Your task to perform on an android device: visit the assistant section in the google photos Image 0: 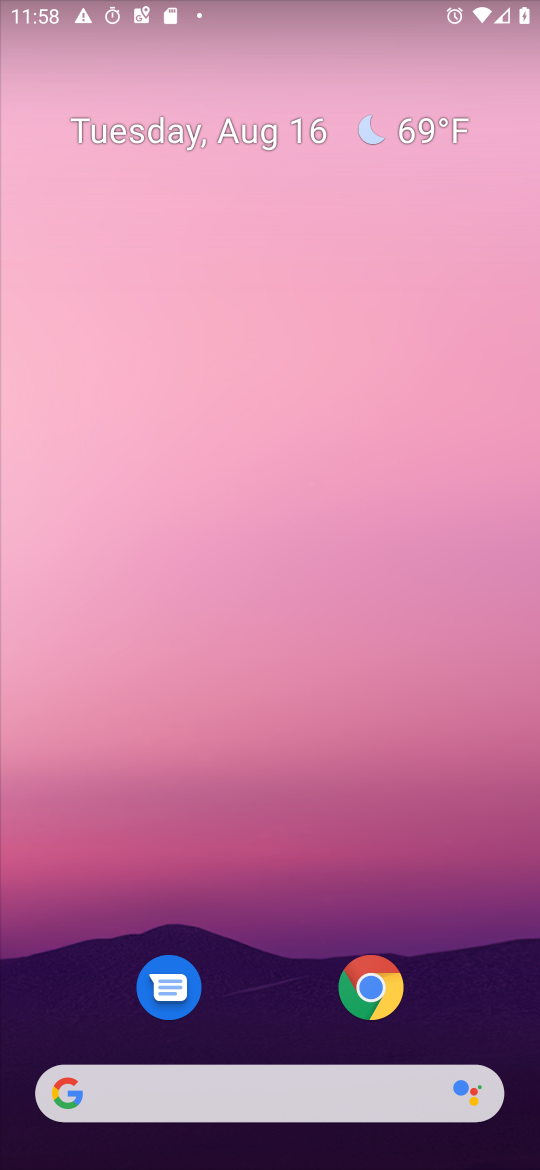
Step 0: drag from (13, 1111) to (371, 264)
Your task to perform on an android device: visit the assistant section in the google photos Image 1: 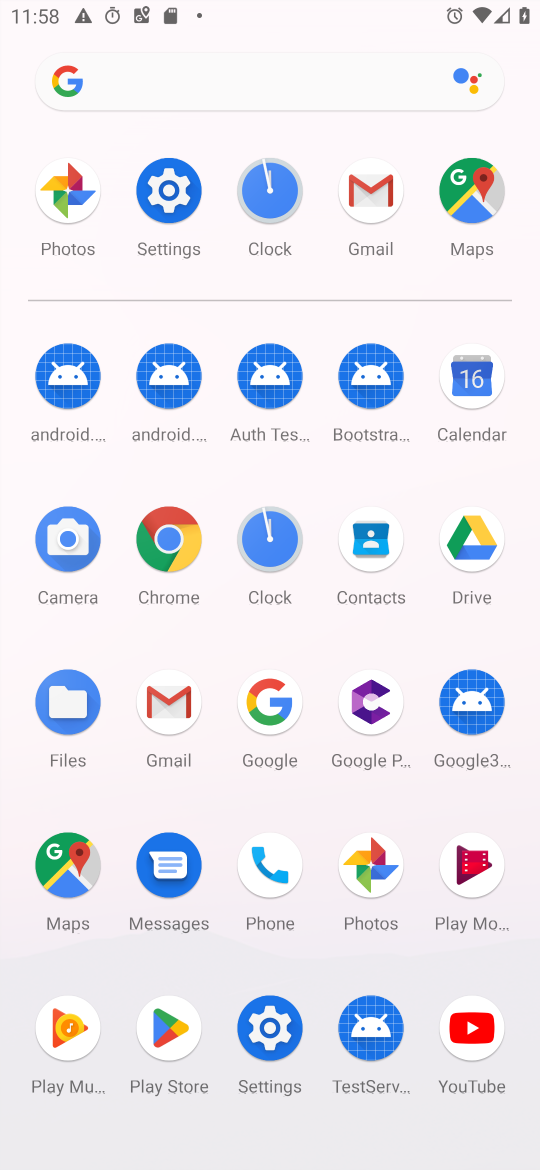
Step 1: click (374, 875)
Your task to perform on an android device: visit the assistant section in the google photos Image 2: 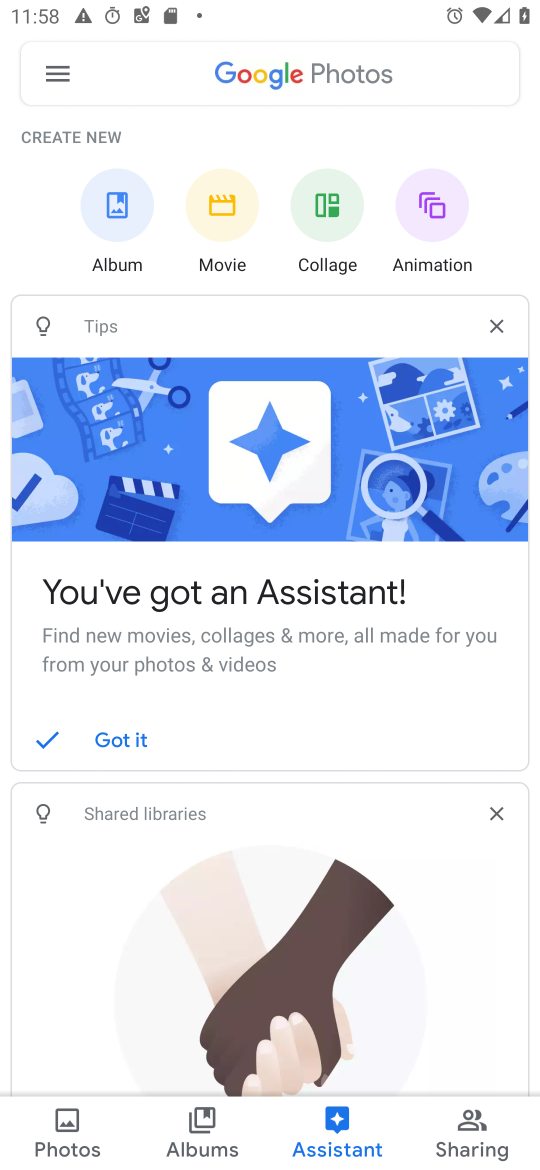
Step 2: task complete